Your task to perform on an android device: turn on the 24-hour format for clock Image 0: 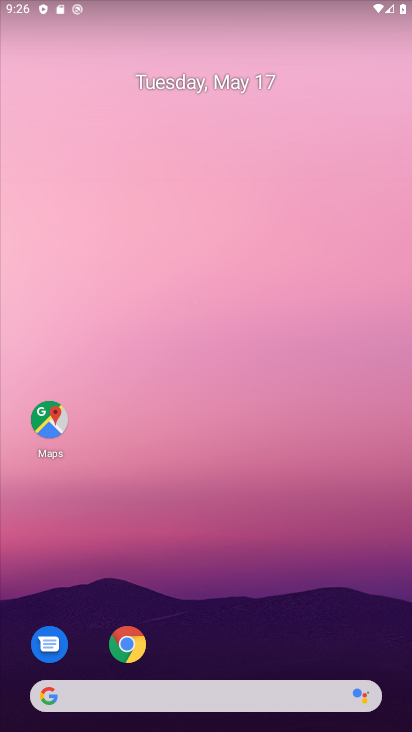
Step 0: drag from (197, 669) to (290, 146)
Your task to perform on an android device: turn on the 24-hour format for clock Image 1: 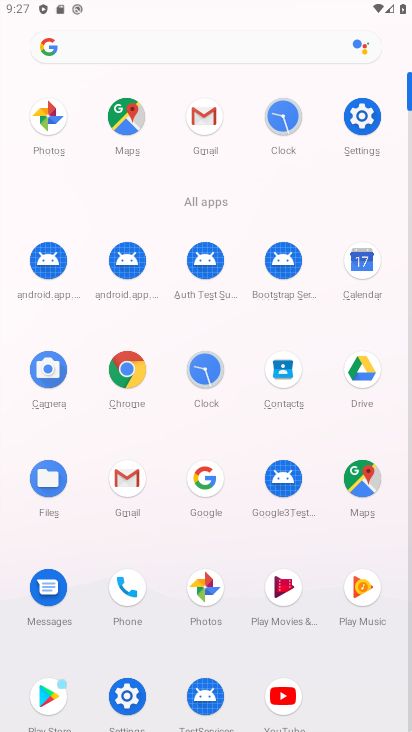
Step 1: click (209, 365)
Your task to perform on an android device: turn on the 24-hour format for clock Image 2: 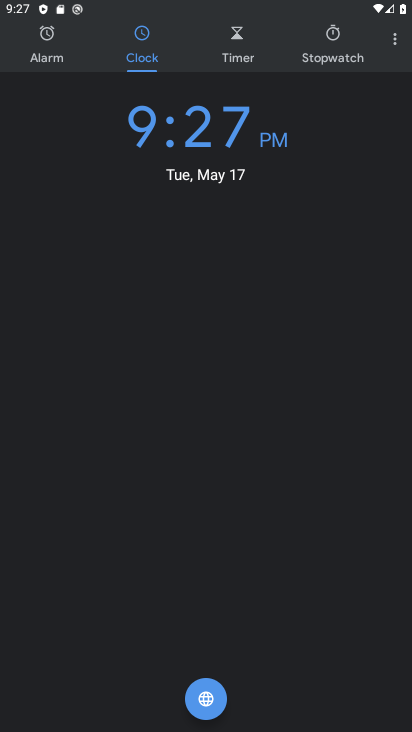
Step 2: click (385, 45)
Your task to perform on an android device: turn on the 24-hour format for clock Image 3: 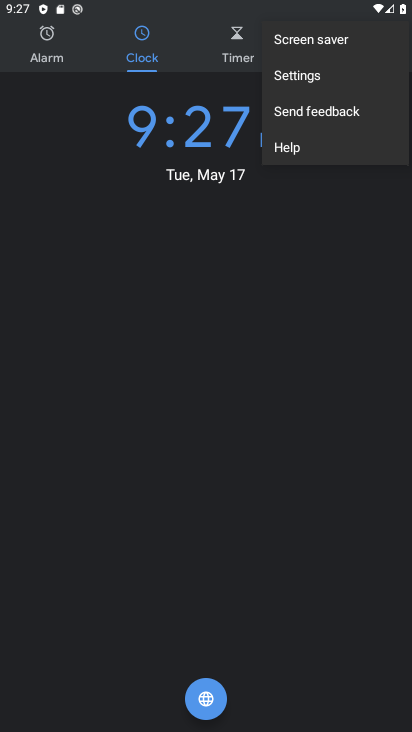
Step 3: click (351, 86)
Your task to perform on an android device: turn on the 24-hour format for clock Image 4: 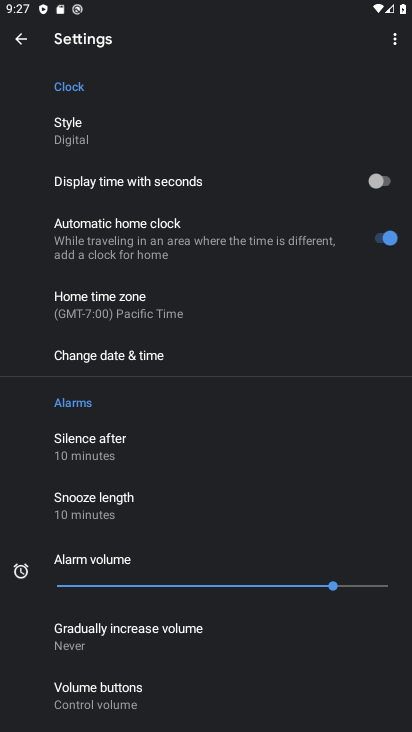
Step 4: click (238, 353)
Your task to perform on an android device: turn on the 24-hour format for clock Image 5: 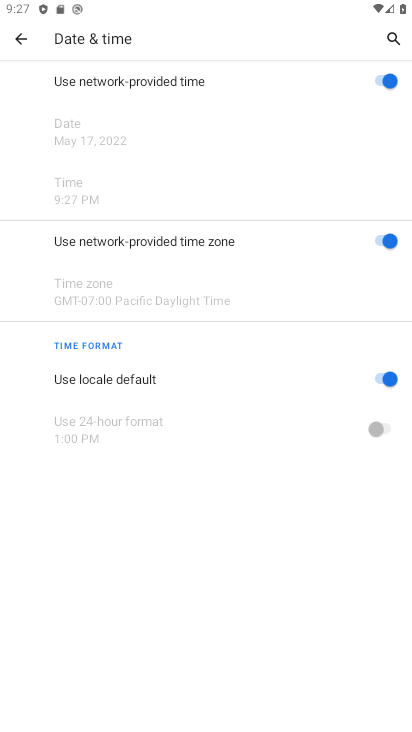
Step 5: click (383, 373)
Your task to perform on an android device: turn on the 24-hour format for clock Image 6: 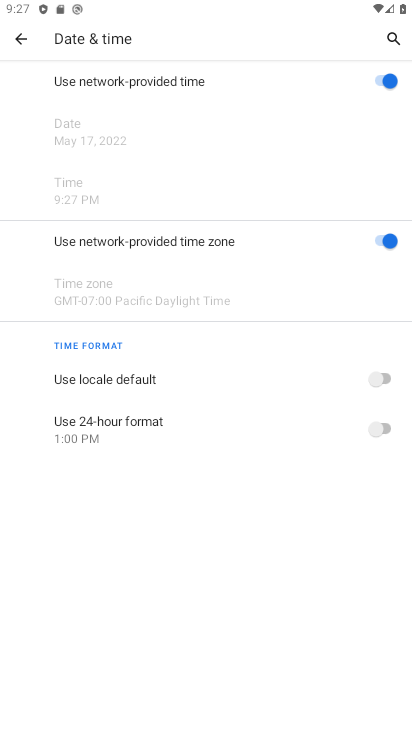
Step 6: click (396, 428)
Your task to perform on an android device: turn on the 24-hour format for clock Image 7: 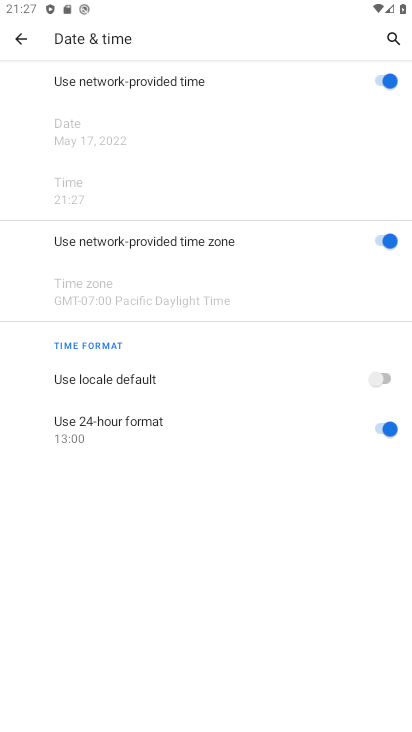
Step 7: task complete